Your task to perform on an android device: Go to location settings Image 0: 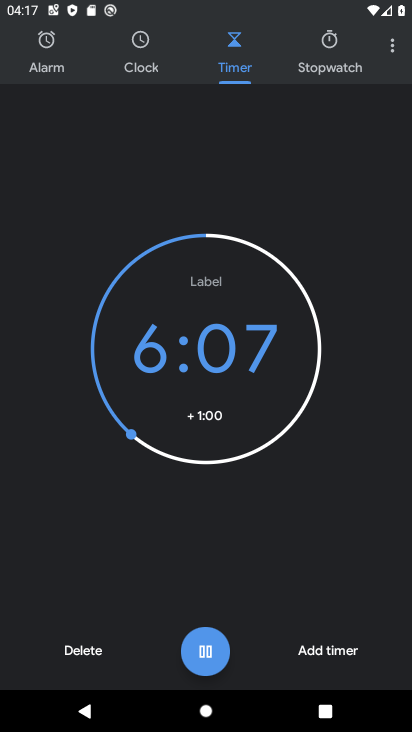
Step 0: press home button
Your task to perform on an android device: Go to location settings Image 1: 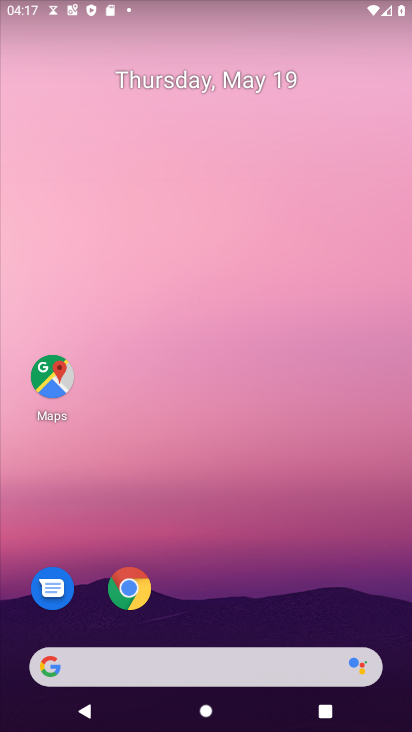
Step 1: drag from (218, 613) to (217, 74)
Your task to perform on an android device: Go to location settings Image 2: 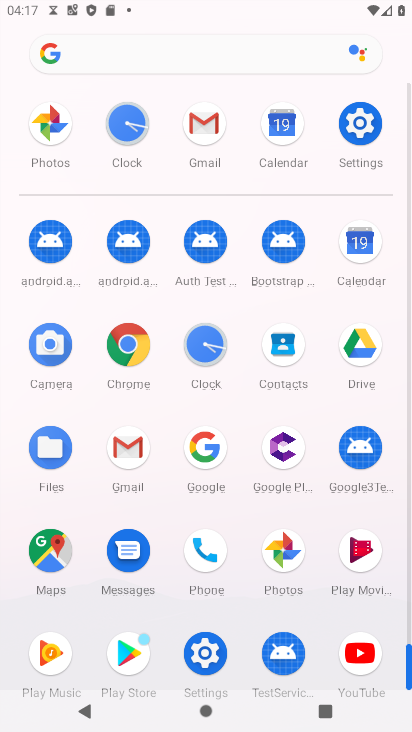
Step 2: click (206, 644)
Your task to perform on an android device: Go to location settings Image 3: 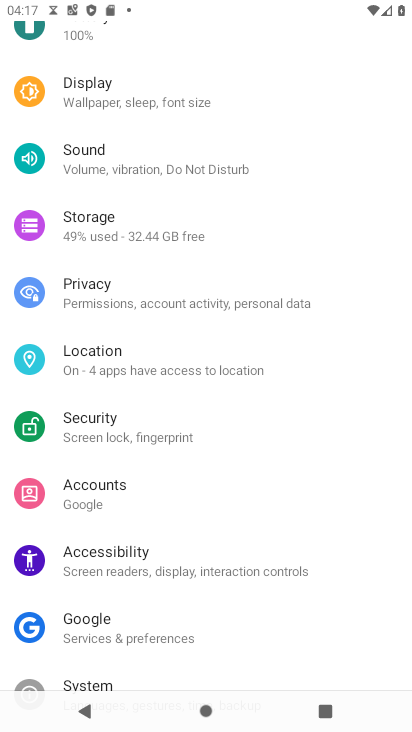
Step 3: click (140, 375)
Your task to perform on an android device: Go to location settings Image 4: 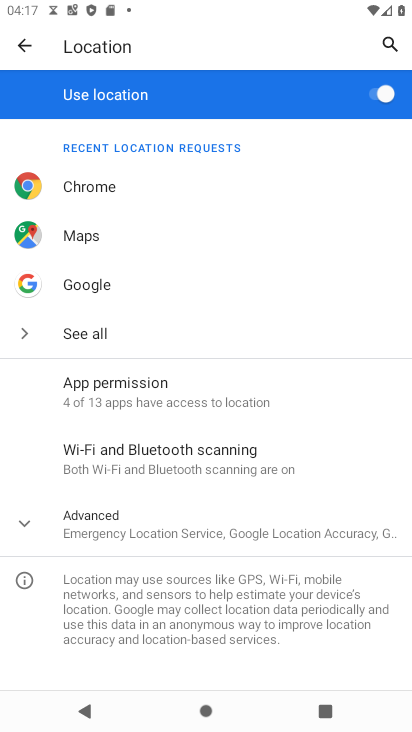
Step 4: task complete